Your task to perform on an android device: open app "Skype" (install if not already installed) and enter user name: "rumor@gmail.com" and password: "kinsman" Image 0: 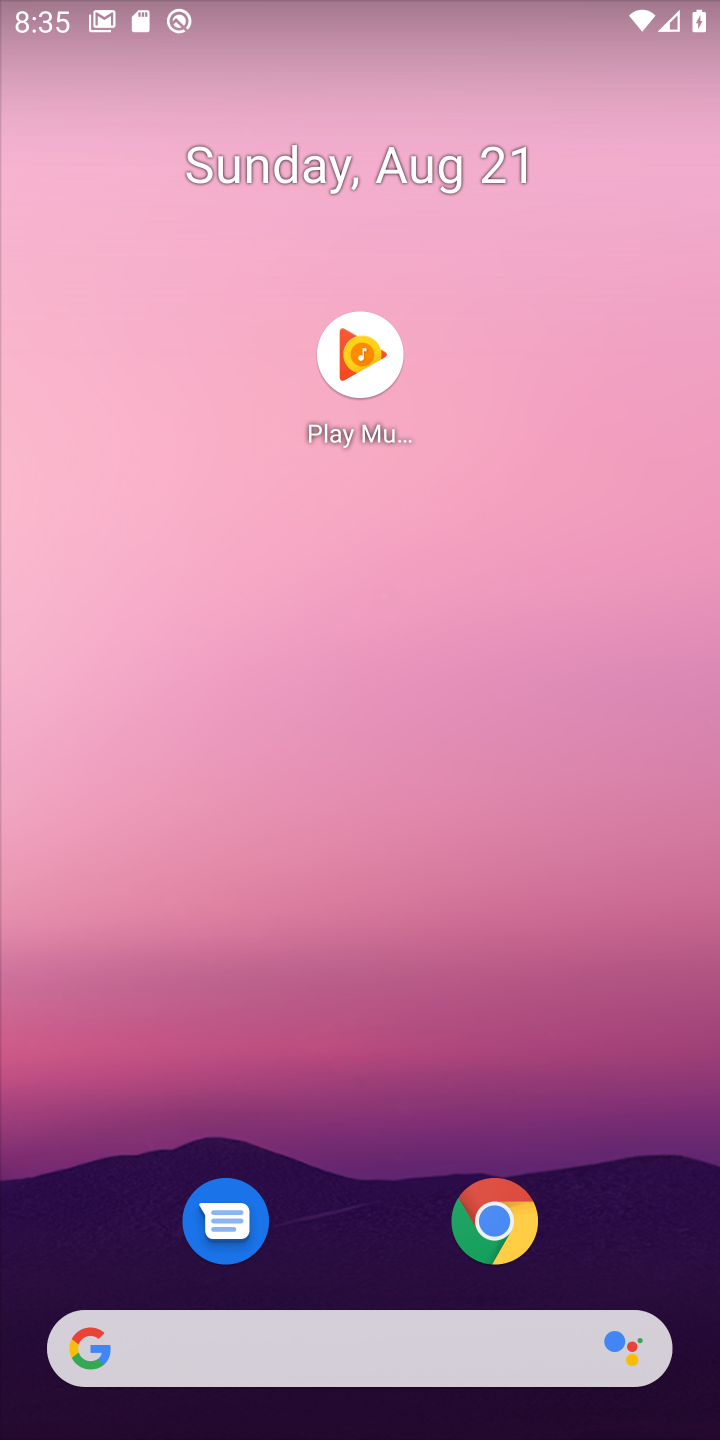
Step 0: drag from (348, 1299) to (262, 179)
Your task to perform on an android device: open app "Skype" (install if not already installed) and enter user name: "rumor@gmail.com" and password: "kinsman" Image 1: 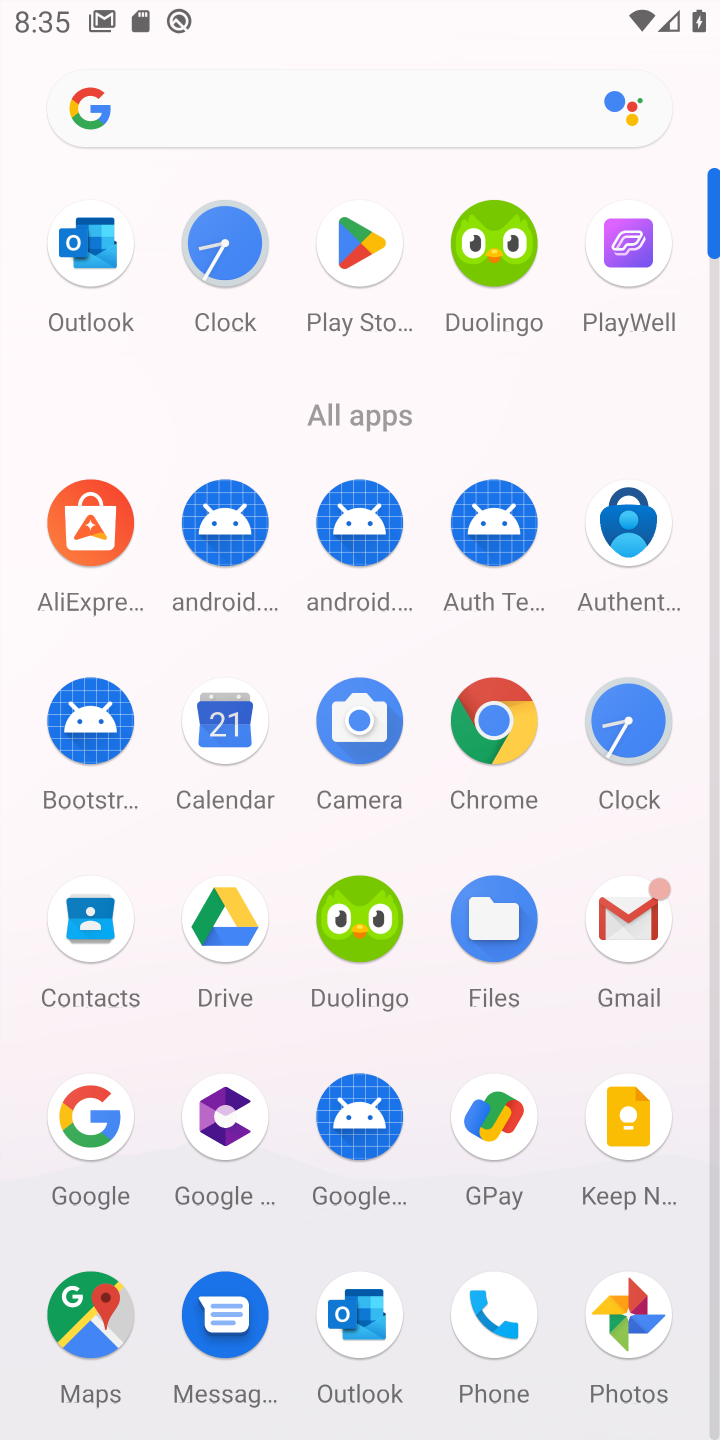
Step 1: click (362, 252)
Your task to perform on an android device: open app "Skype" (install if not already installed) and enter user name: "rumor@gmail.com" and password: "kinsman" Image 2: 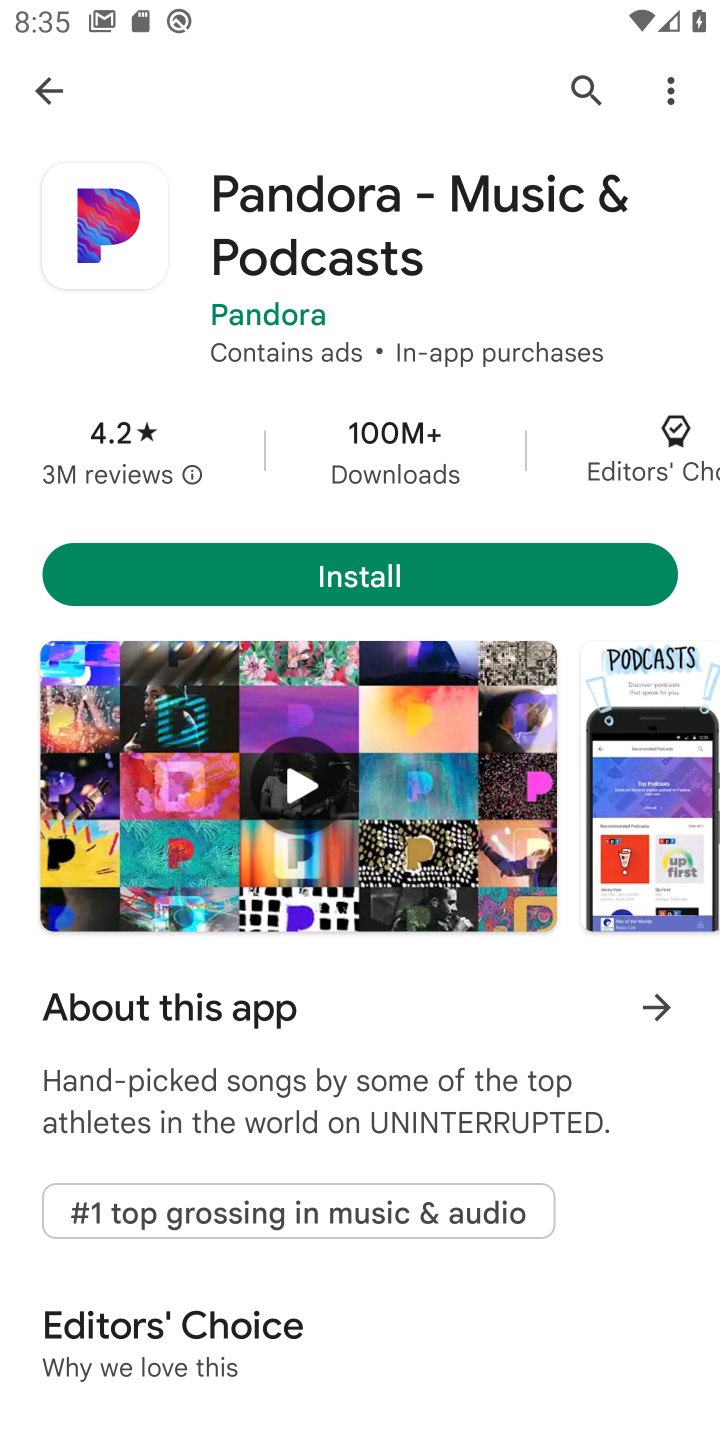
Step 2: click (589, 91)
Your task to perform on an android device: open app "Skype" (install if not already installed) and enter user name: "rumor@gmail.com" and password: "kinsman" Image 3: 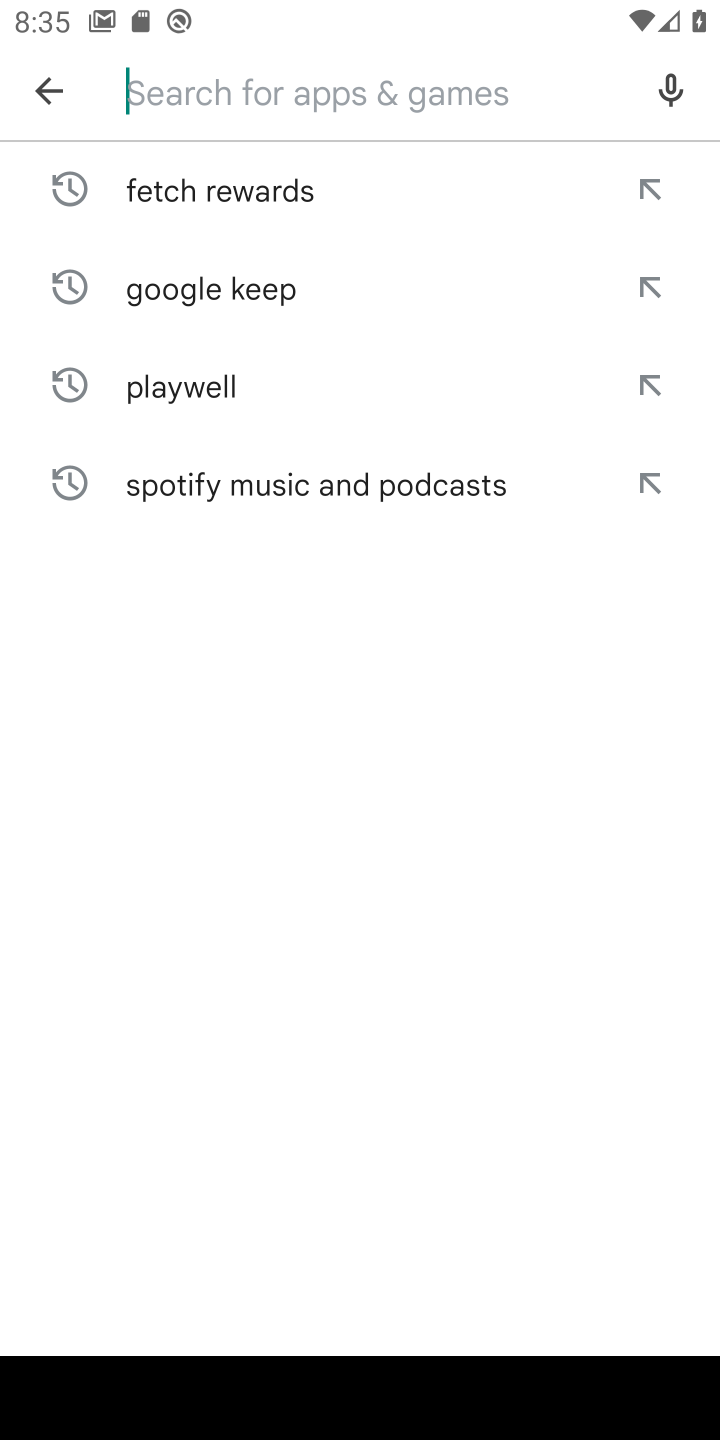
Step 3: type "Skype"
Your task to perform on an android device: open app "Skype" (install if not already installed) and enter user name: "rumor@gmail.com" and password: "kinsman" Image 4: 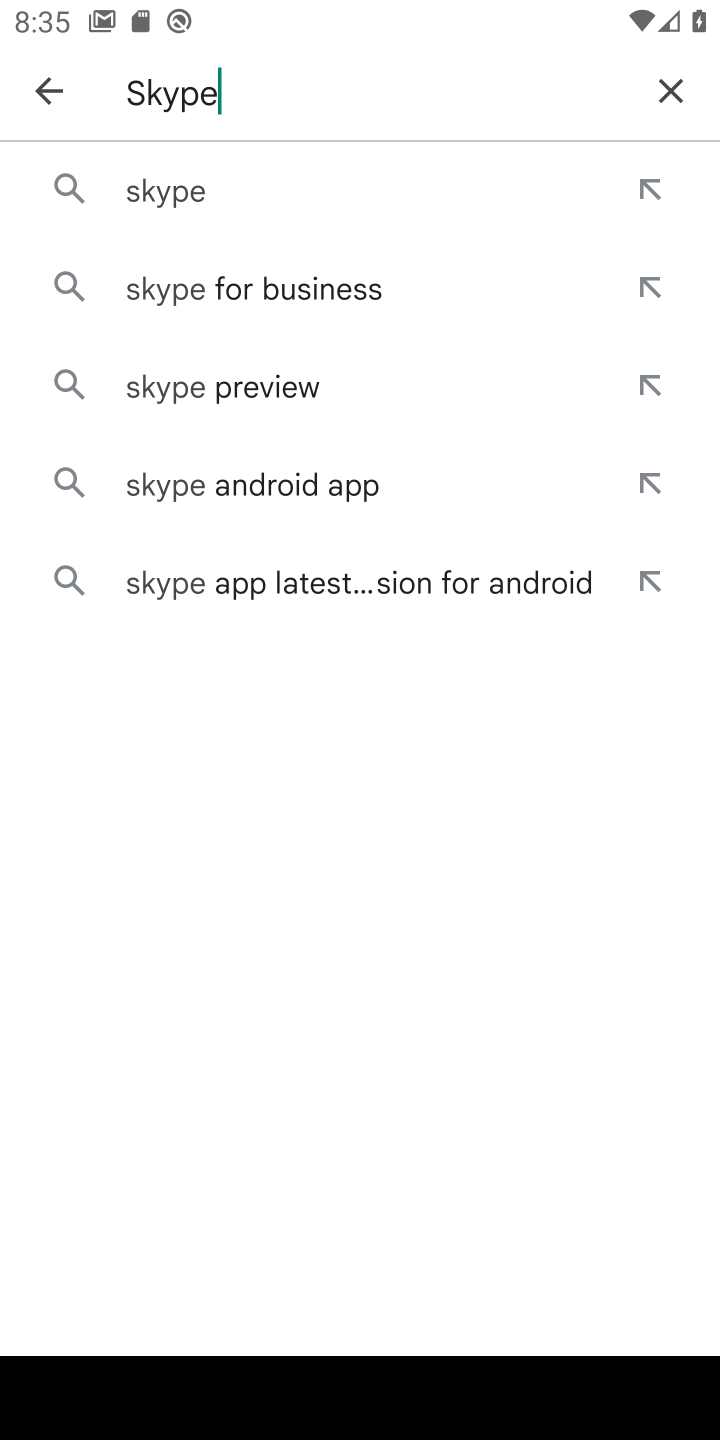
Step 4: click (169, 183)
Your task to perform on an android device: open app "Skype" (install if not already installed) and enter user name: "rumor@gmail.com" and password: "kinsman" Image 5: 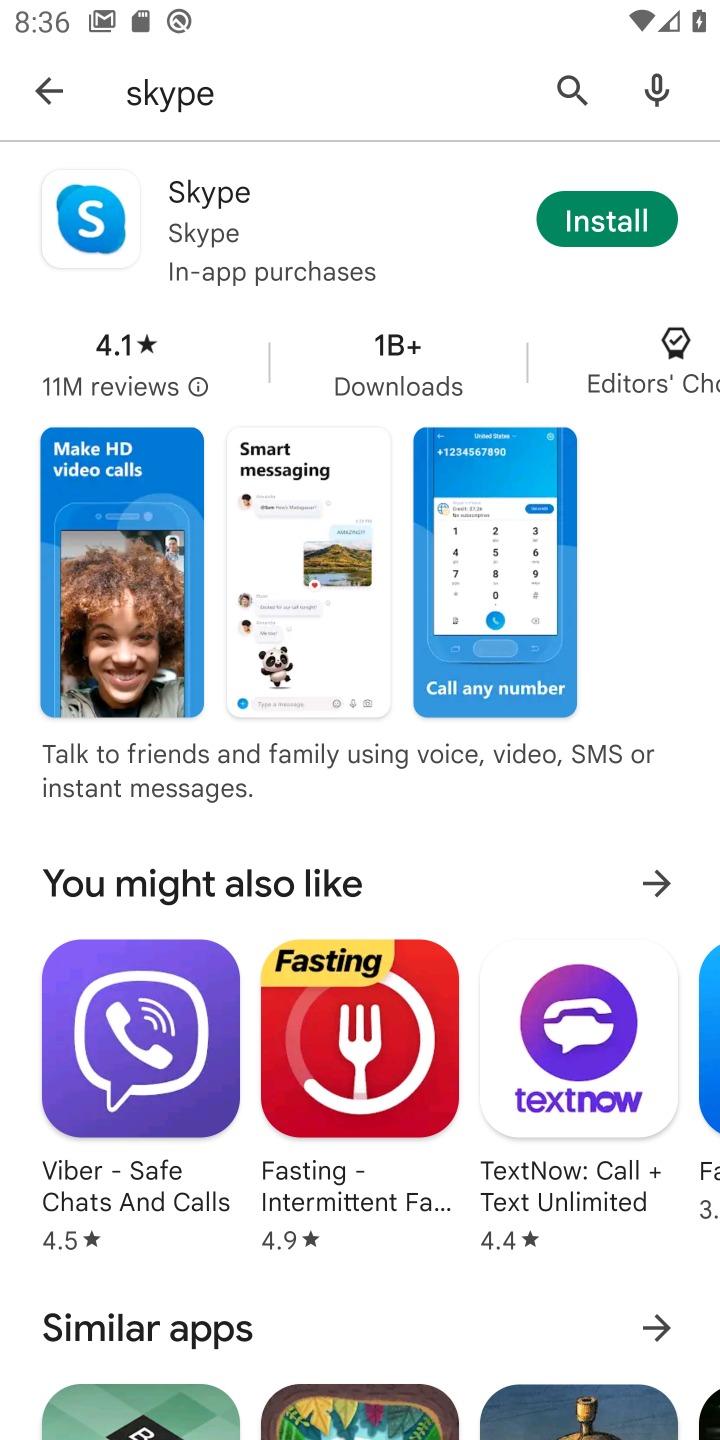
Step 5: click (621, 225)
Your task to perform on an android device: open app "Skype" (install if not already installed) and enter user name: "rumor@gmail.com" and password: "kinsman" Image 6: 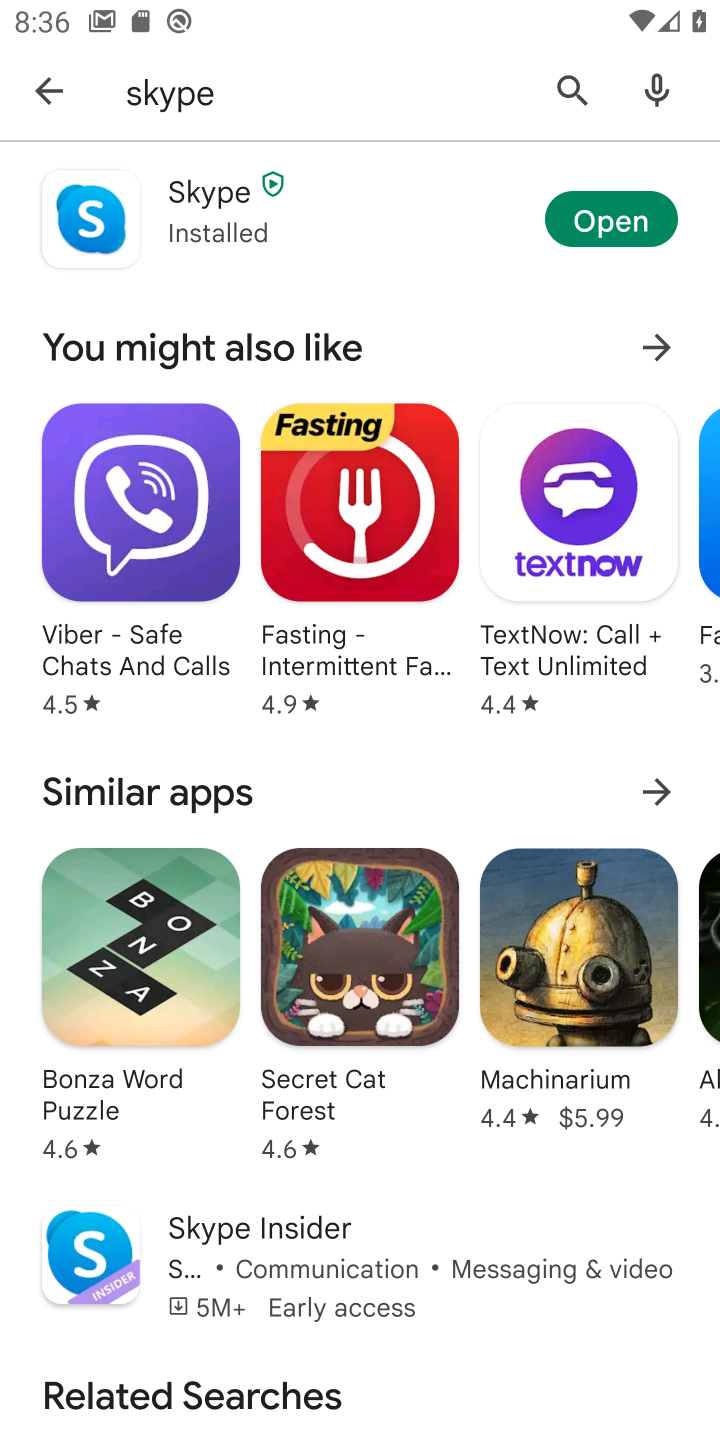
Step 6: click (601, 231)
Your task to perform on an android device: open app "Skype" (install if not already installed) and enter user name: "rumor@gmail.com" and password: "kinsman" Image 7: 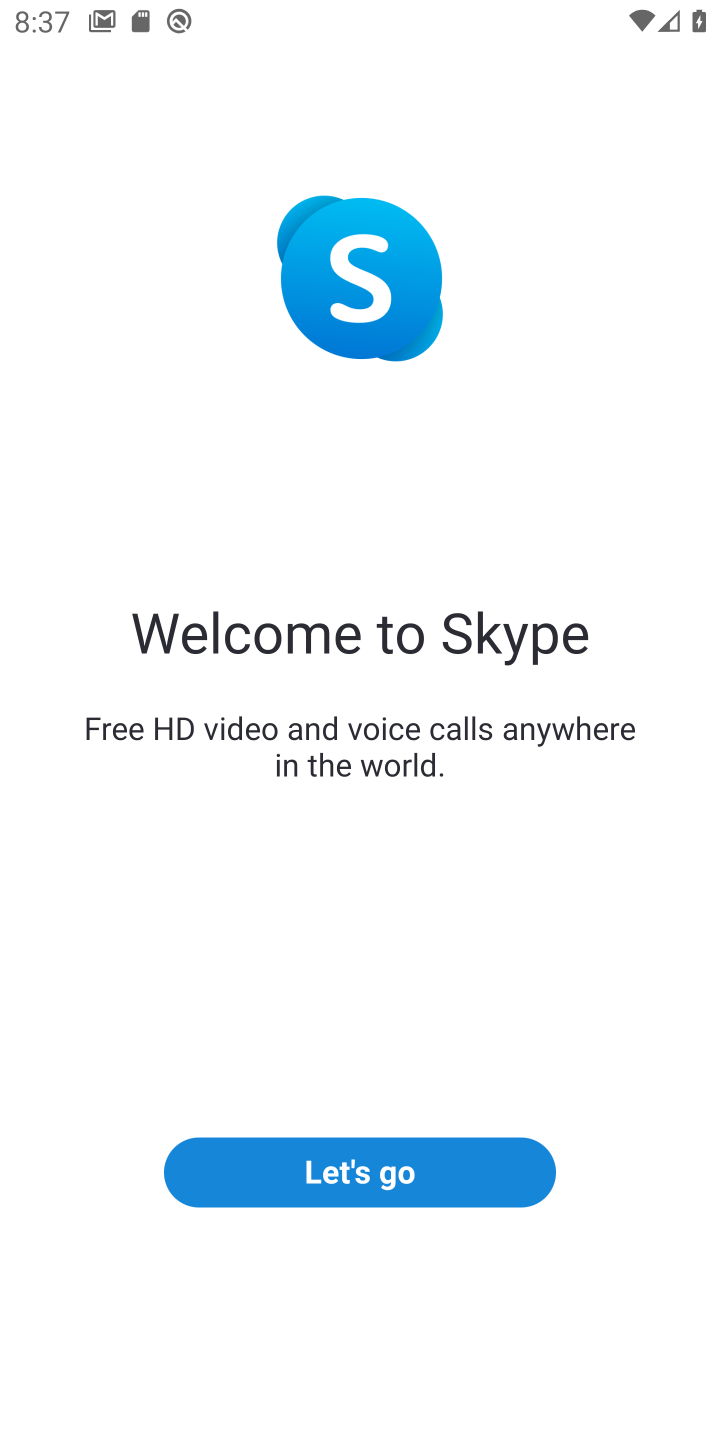
Step 7: click (352, 1187)
Your task to perform on an android device: open app "Skype" (install if not already installed) and enter user name: "rumor@gmail.com" and password: "kinsman" Image 8: 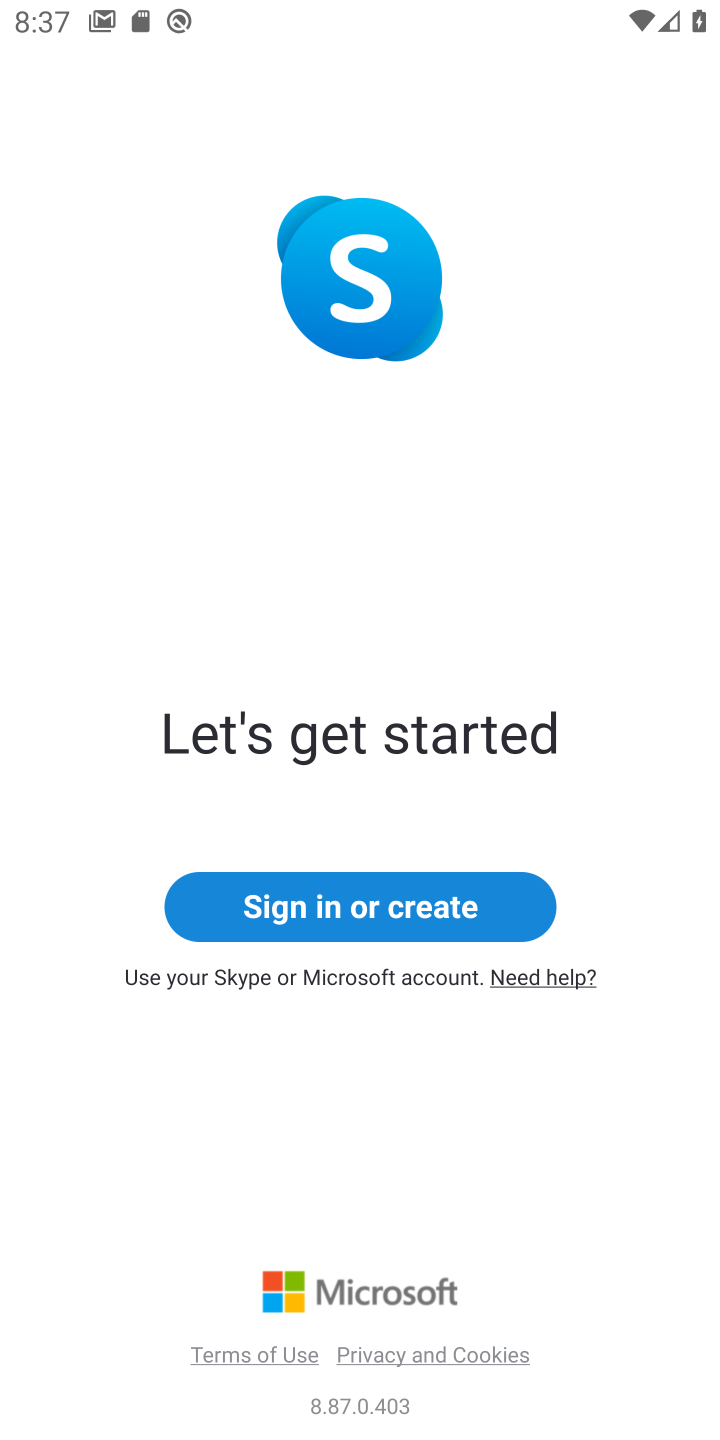
Step 8: click (363, 921)
Your task to perform on an android device: open app "Skype" (install if not already installed) and enter user name: "rumor@gmail.com" and password: "kinsman" Image 9: 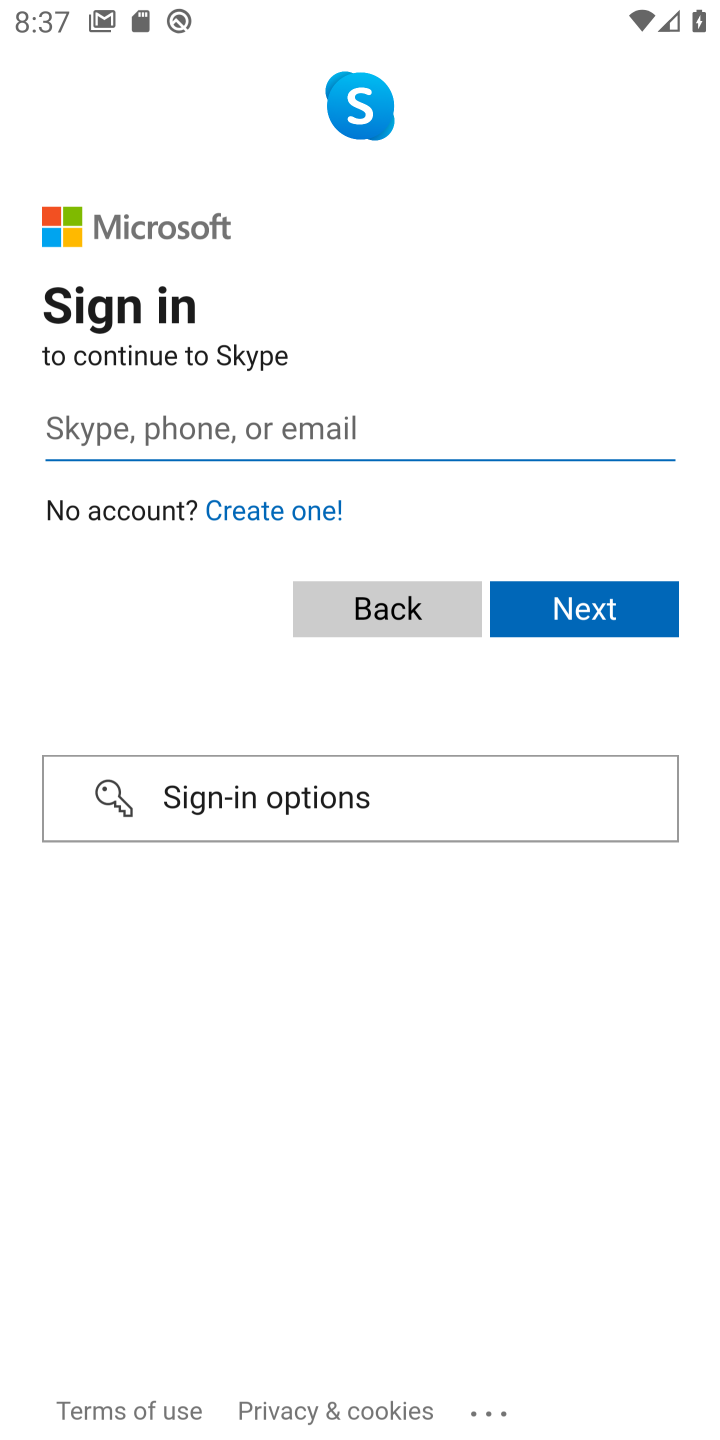
Step 9: click (376, 436)
Your task to perform on an android device: open app "Skype" (install if not already installed) and enter user name: "rumor@gmail.com" and password: "kinsman" Image 10: 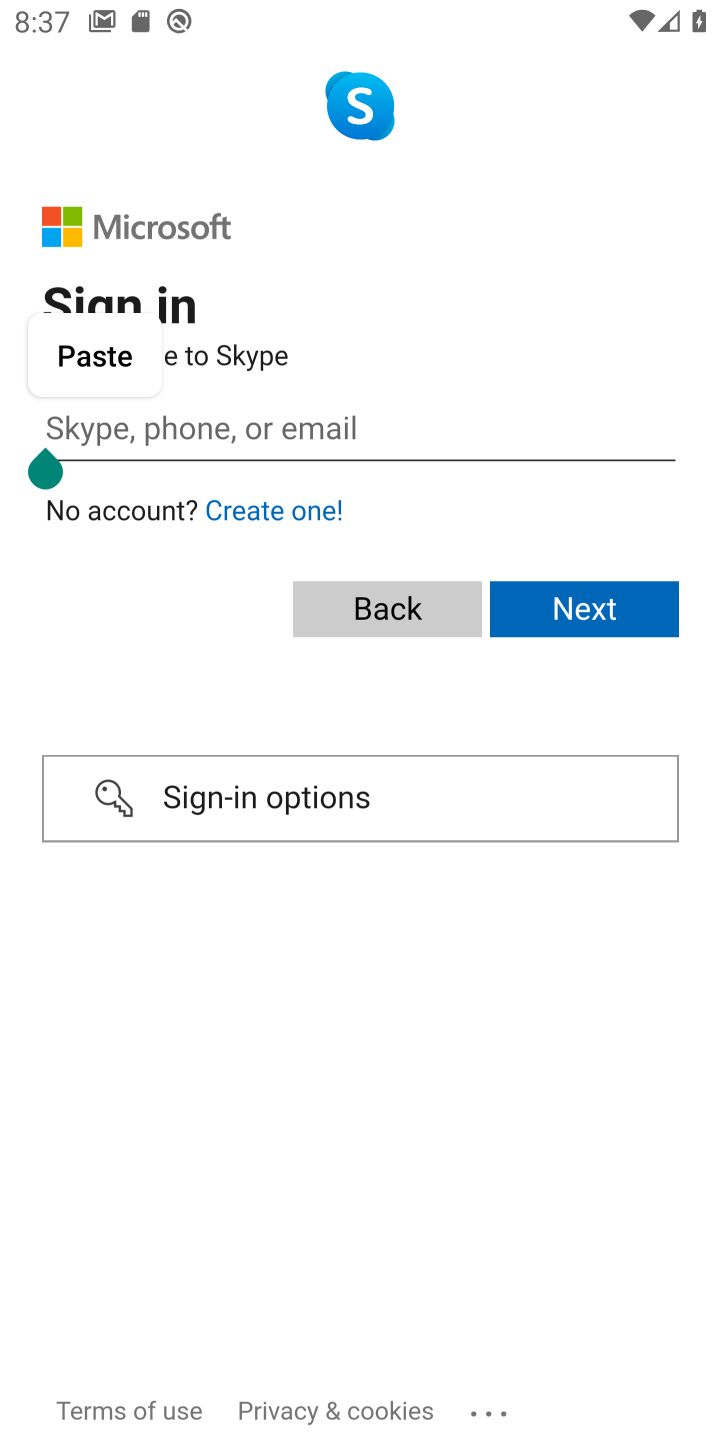
Step 10: type "rumor@gmail.com"
Your task to perform on an android device: open app "Skype" (install if not already installed) and enter user name: "rumor@gmail.com" and password: "kinsman" Image 11: 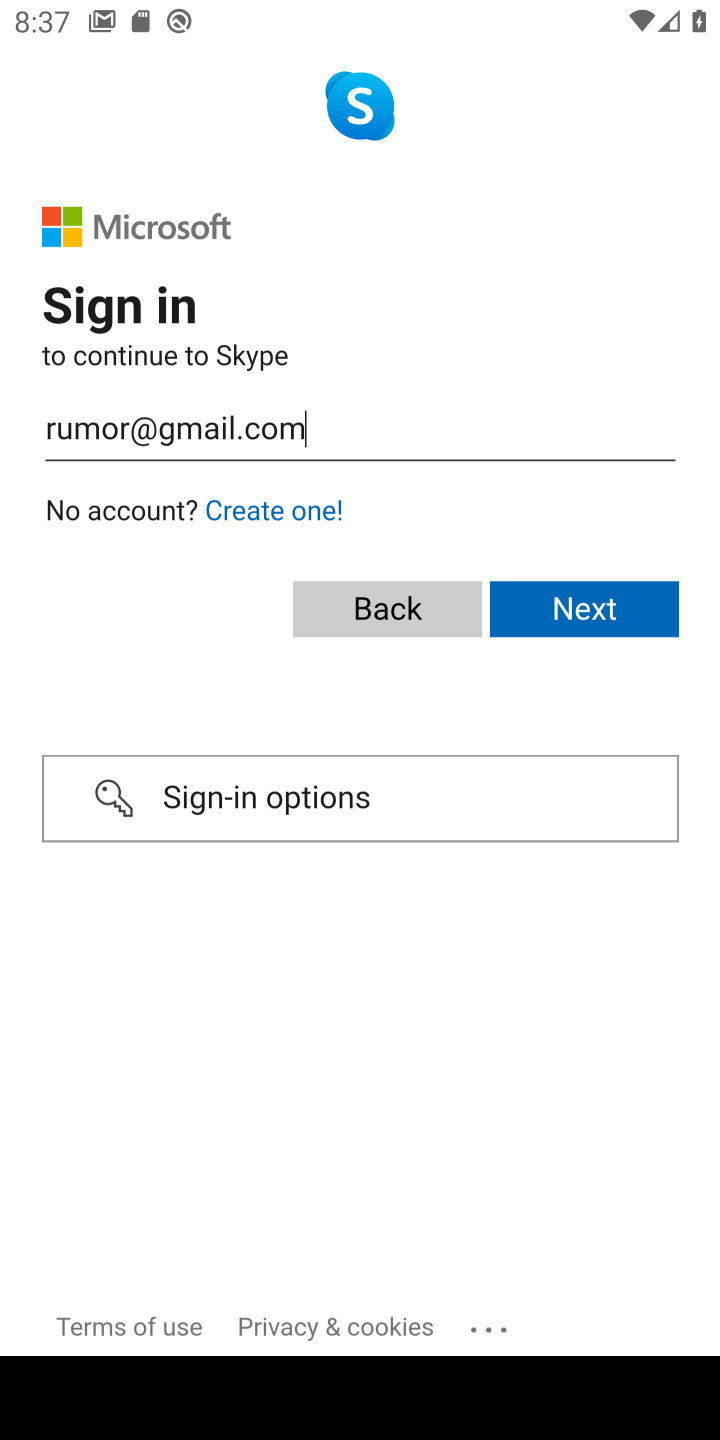
Step 11: type ""
Your task to perform on an android device: open app "Skype" (install if not already installed) and enter user name: "rumor@gmail.com" and password: "kinsman" Image 12: 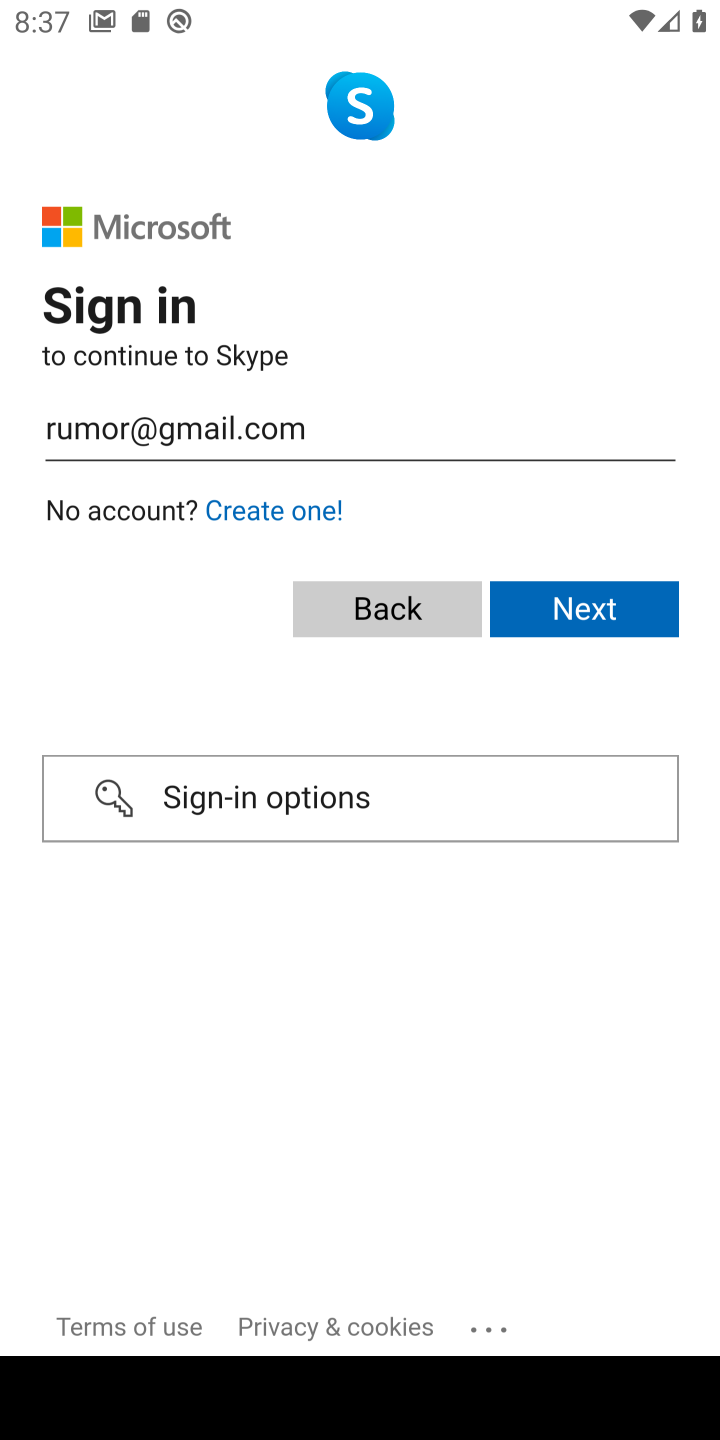
Step 12: click (597, 611)
Your task to perform on an android device: open app "Skype" (install if not already installed) and enter user name: "rumor@gmail.com" and password: "kinsman" Image 13: 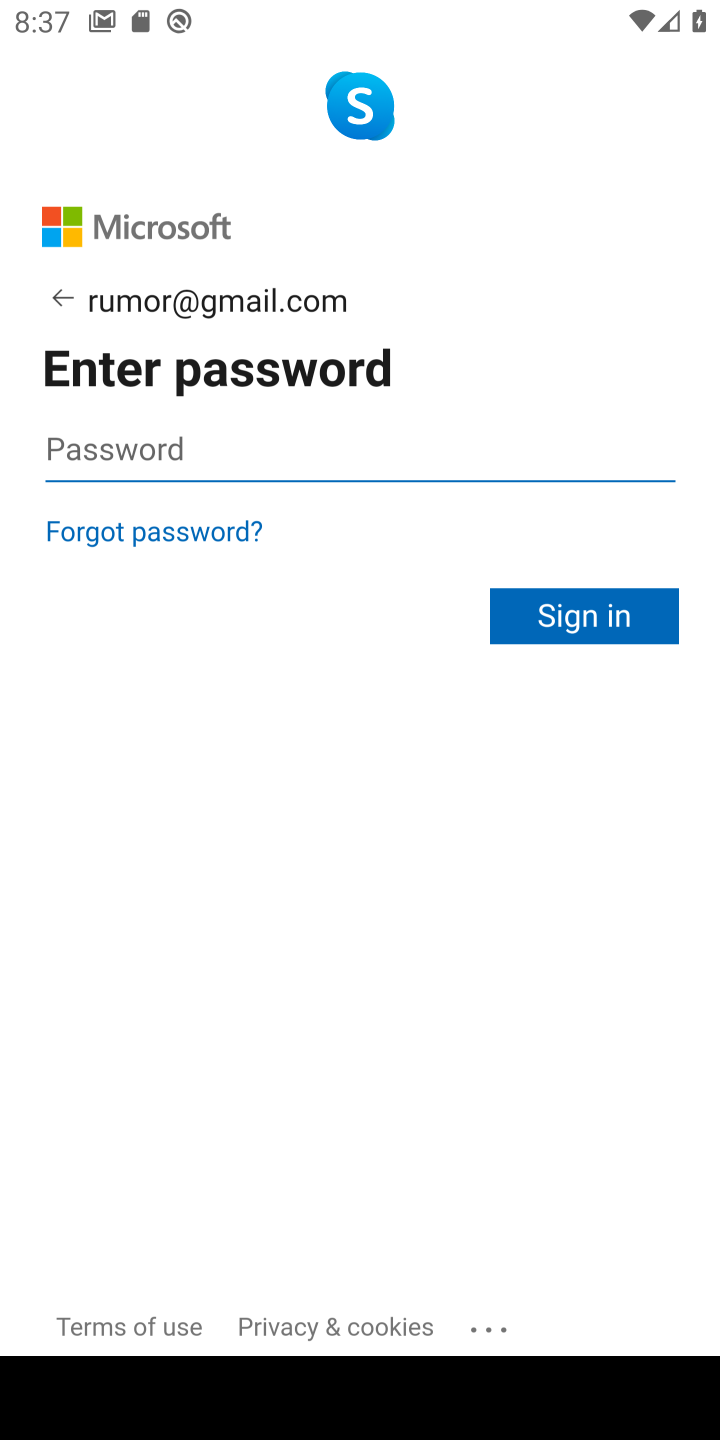
Step 13: type "kinsman"
Your task to perform on an android device: open app "Skype" (install if not already installed) and enter user name: "rumor@gmail.com" and password: "kinsman" Image 14: 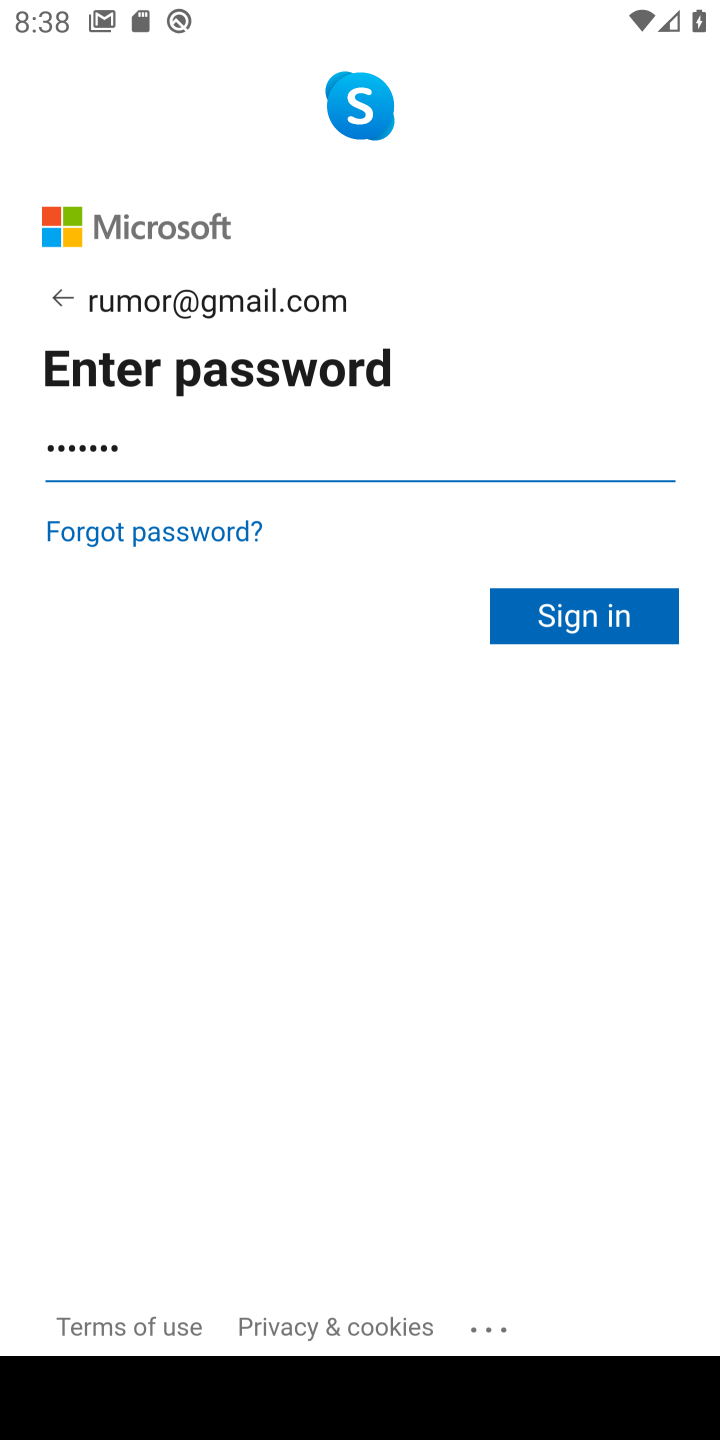
Step 14: task complete